Your task to perform on an android device: View the shopping cart on costco.com. Add "bose soundlink mini" to the cart on costco.com, then select checkout. Image 0: 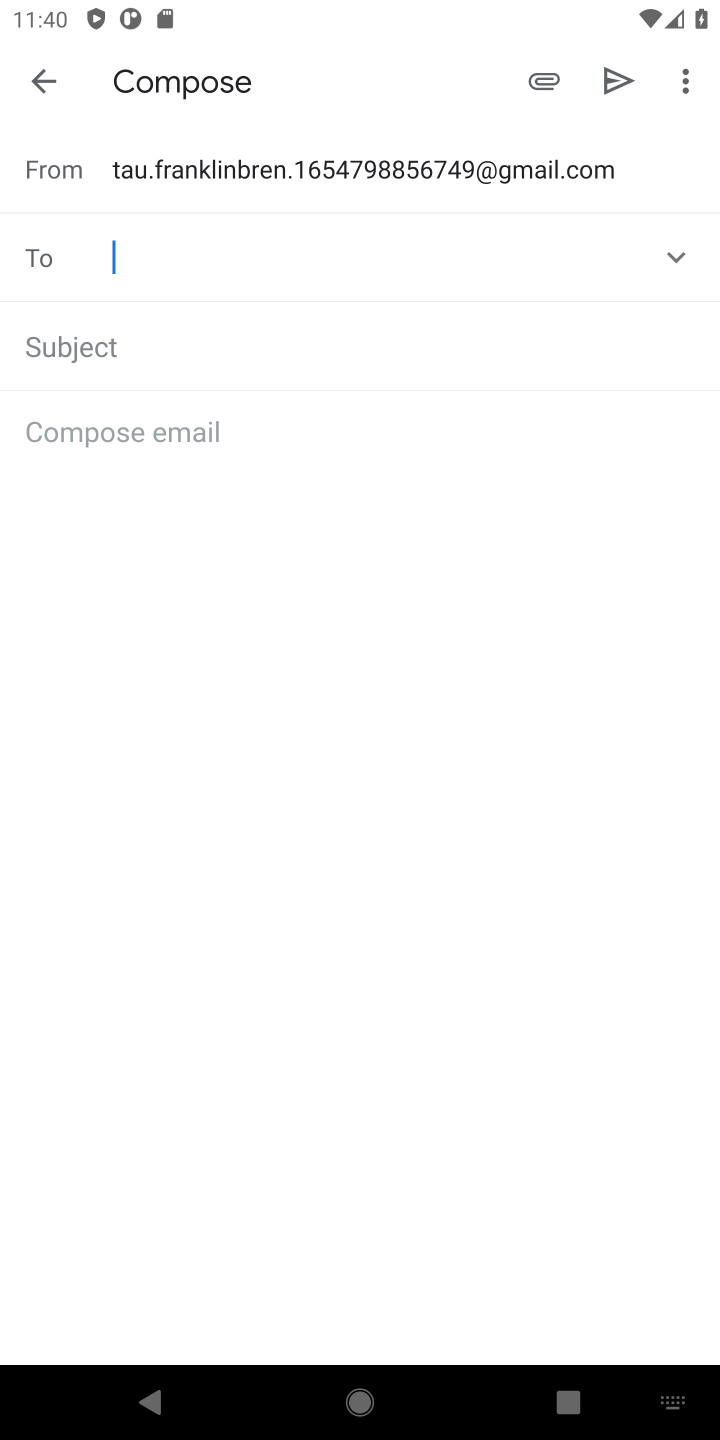
Step 0: press home button
Your task to perform on an android device: View the shopping cart on costco.com. Add "bose soundlink mini" to the cart on costco.com, then select checkout. Image 1: 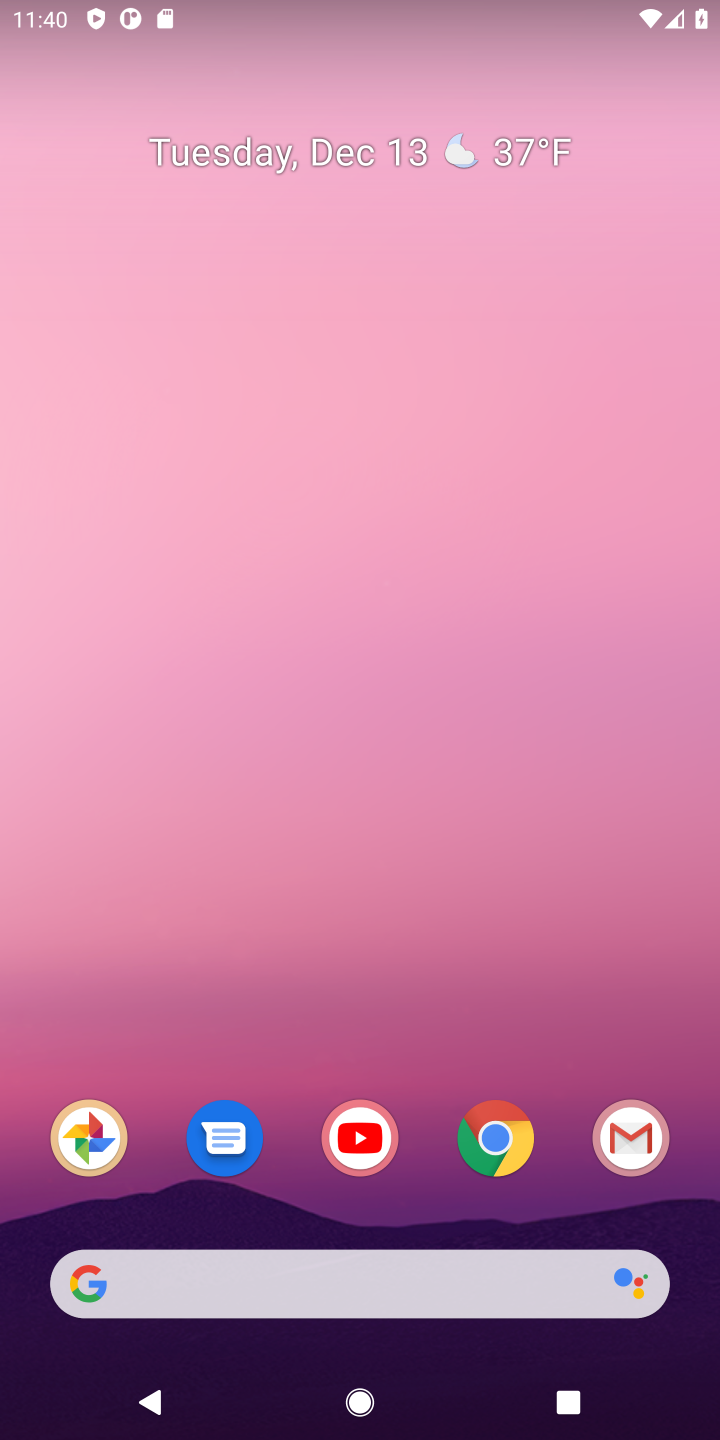
Step 1: click (509, 1152)
Your task to perform on an android device: View the shopping cart on costco.com. Add "bose soundlink mini" to the cart on costco.com, then select checkout. Image 2: 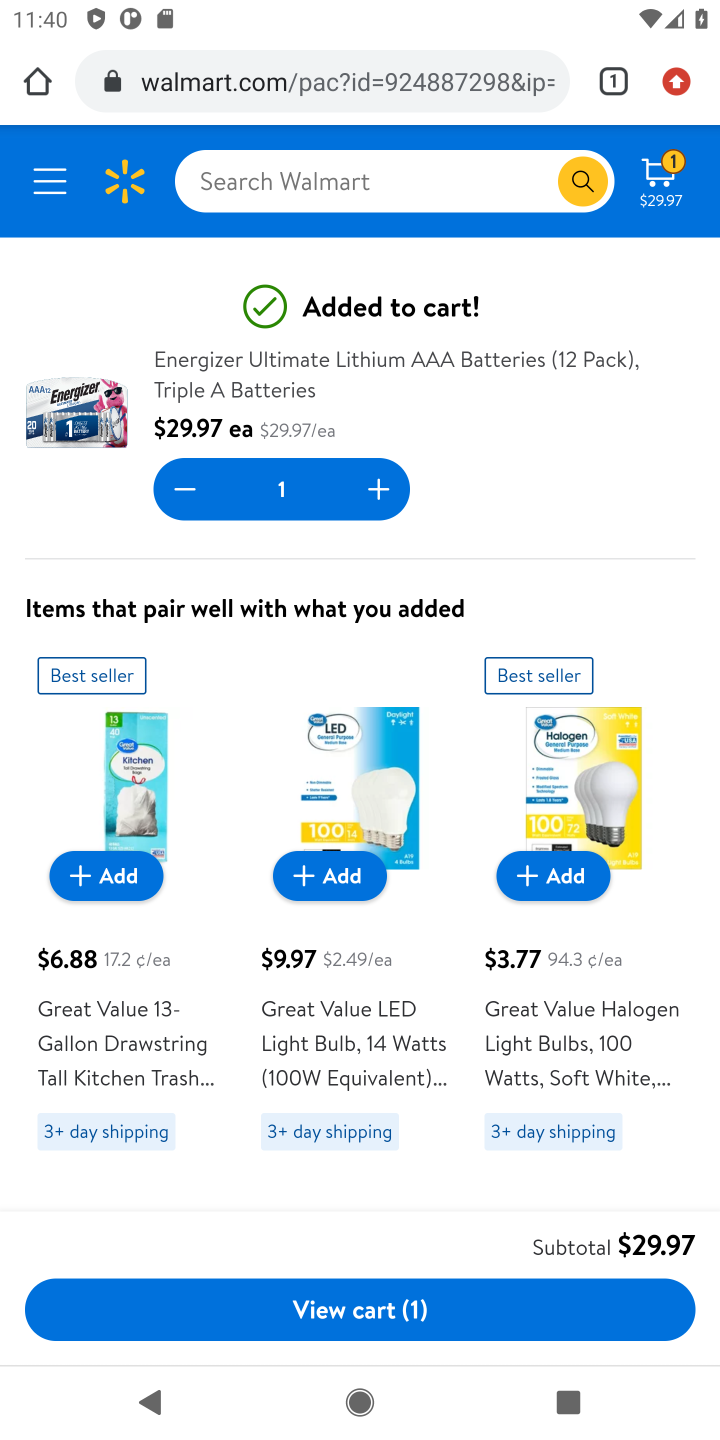
Step 2: click (612, 87)
Your task to perform on an android device: View the shopping cart on costco.com. Add "bose soundlink mini" to the cart on costco.com, then select checkout. Image 3: 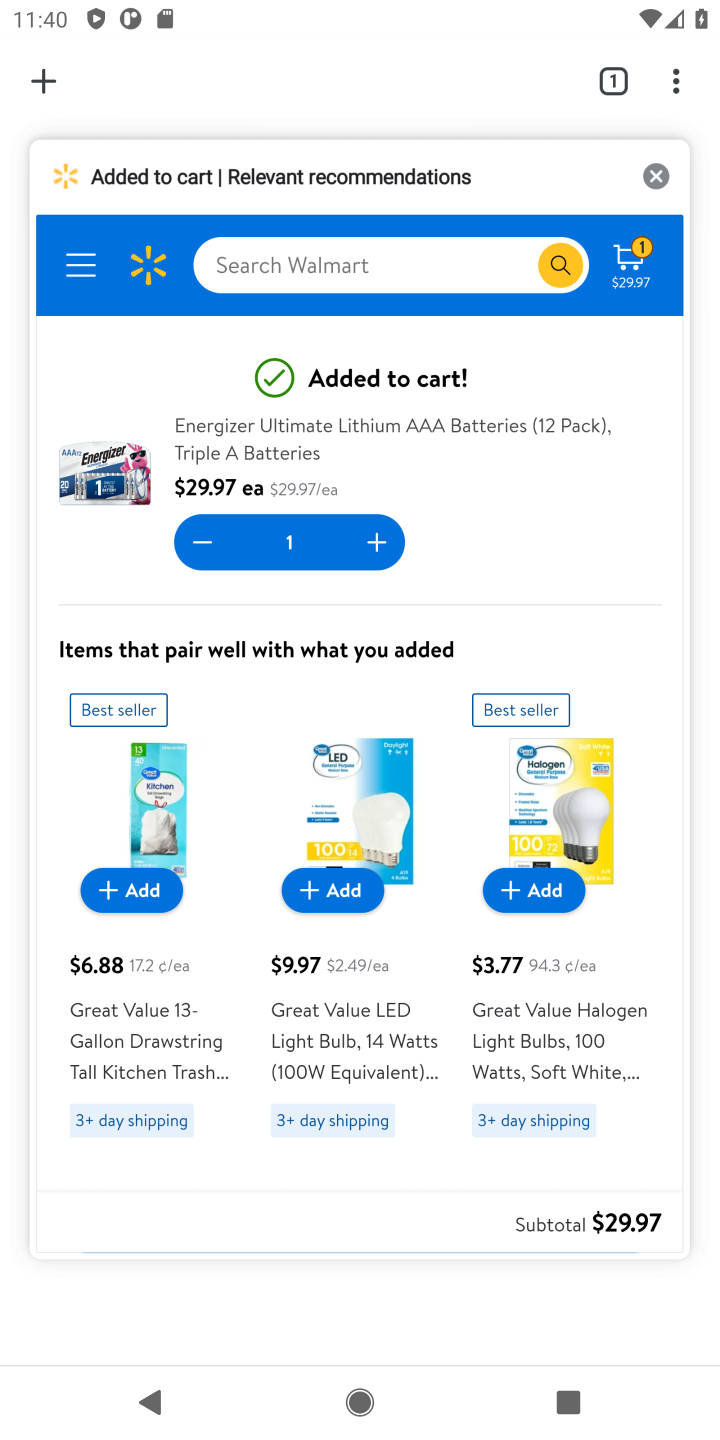
Step 3: click (47, 91)
Your task to perform on an android device: View the shopping cart on costco.com. Add "bose soundlink mini" to the cart on costco.com, then select checkout. Image 4: 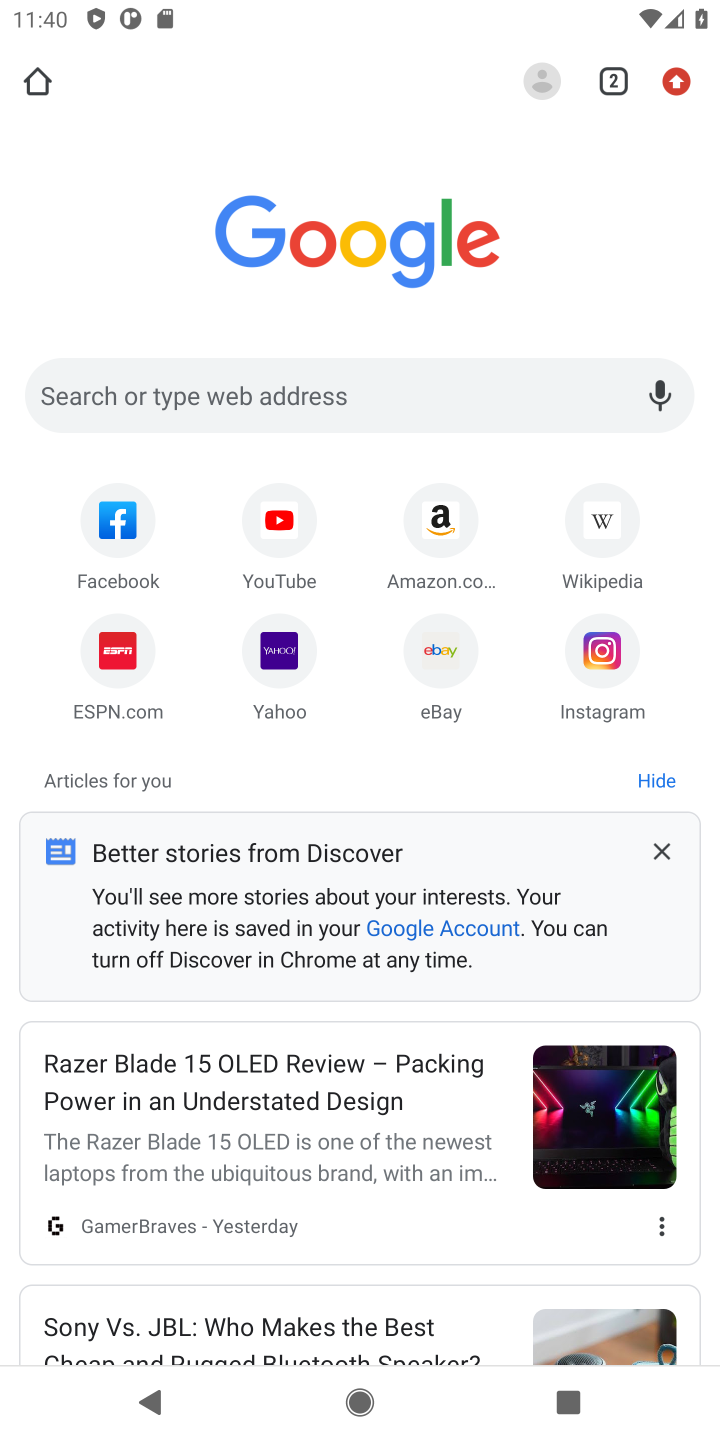
Step 4: click (307, 390)
Your task to perform on an android device: View the shopping cart on costco.com. Add "bose soundlink mini" to the cart on costco.com, then select checkout. Image 5: 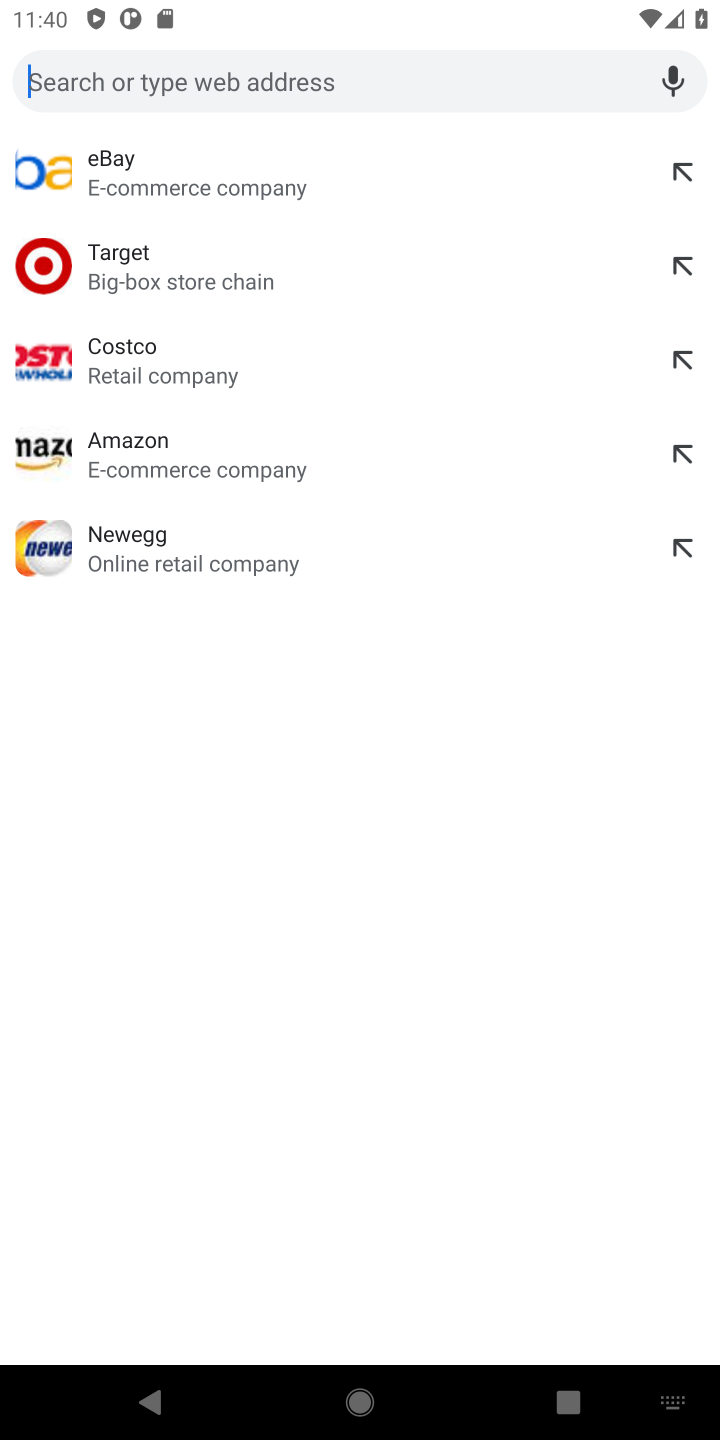
Step 5: type "costco"
Your task to perform on an android device: View the shopping cart on costco.com. Add "bose soundlink mini" to the cart on costco.com, then select checkout. Image 6: 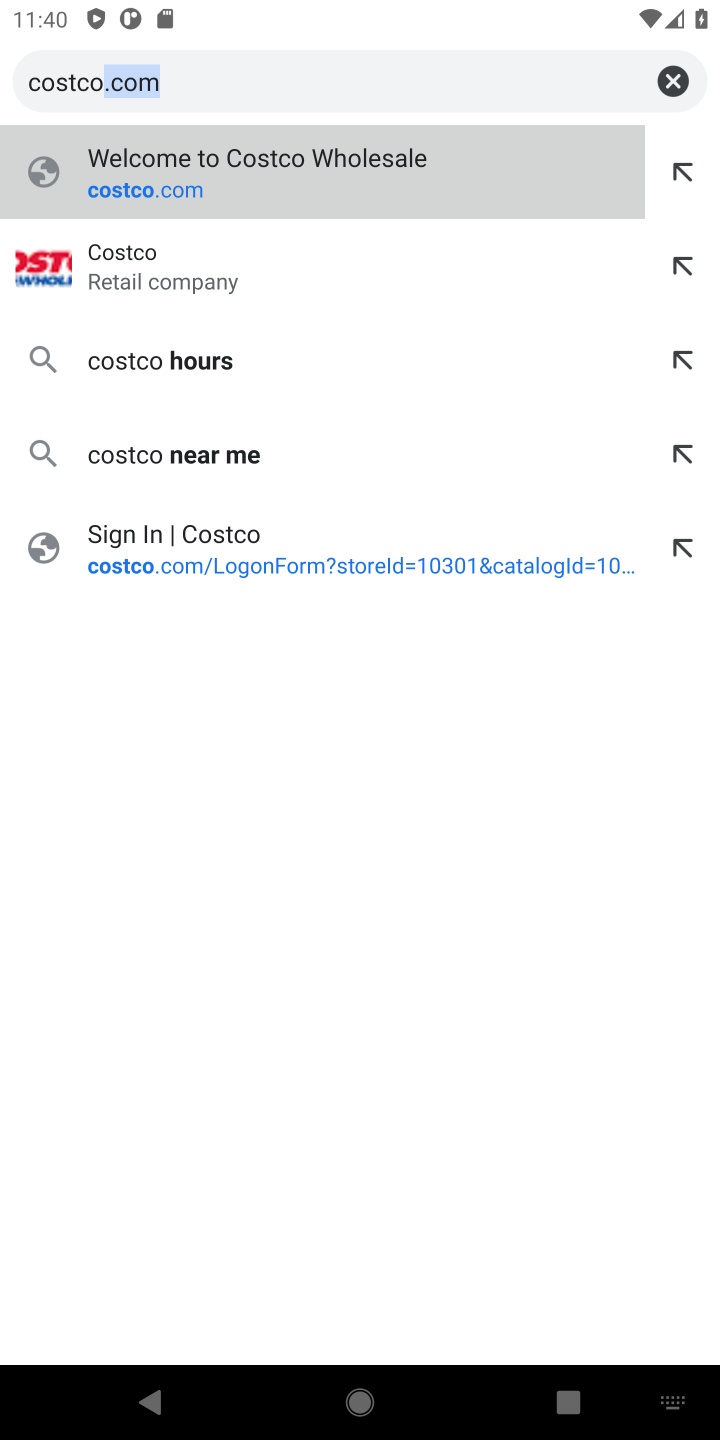
Step 6: click (291, 176)
Your task to perform on an android device: View the shopping cart on costco.com. Add "bose soundlink mini" to the cart on costco.com, then select checkout. Image 7: 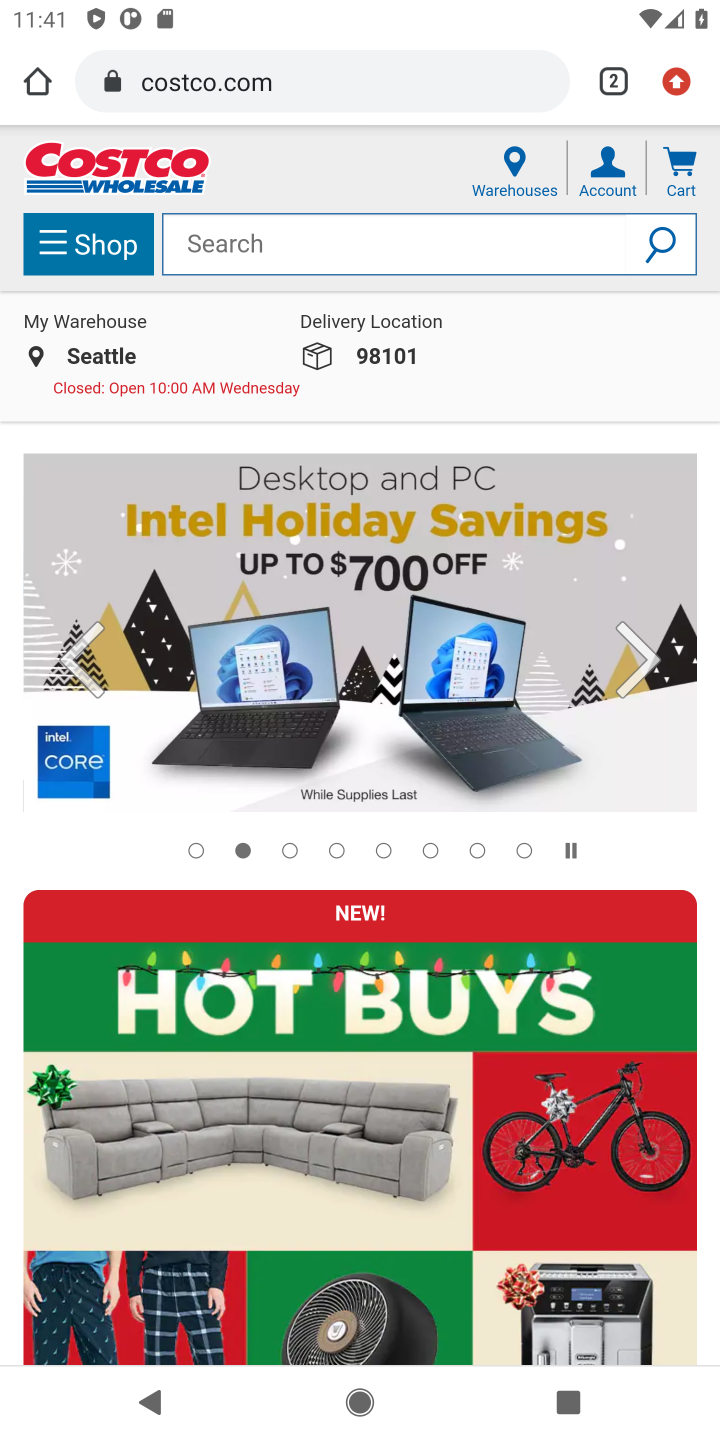
Step 7: click (213, 247)
Your task to perform on an android device: View the shopping cart on costco.com. Add "bose soundlink mini" to the cart on costco.com, then select checkout. Image 8: 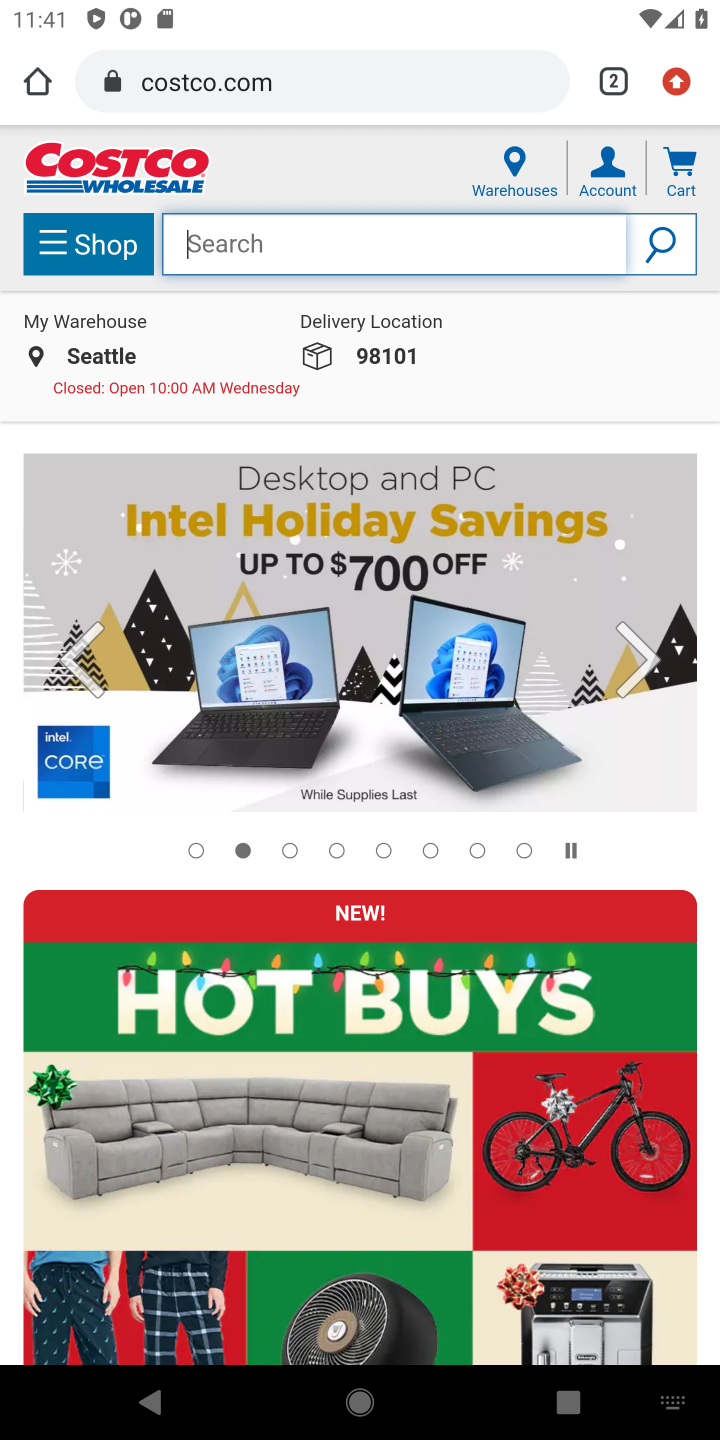
Step 8: type "bose soundlink mini"
Your task to perform on an android device: View the shopping cart on costco.com. Add "bose soundlink mini" to the cart on costco.com, then select checkout. Image 9: 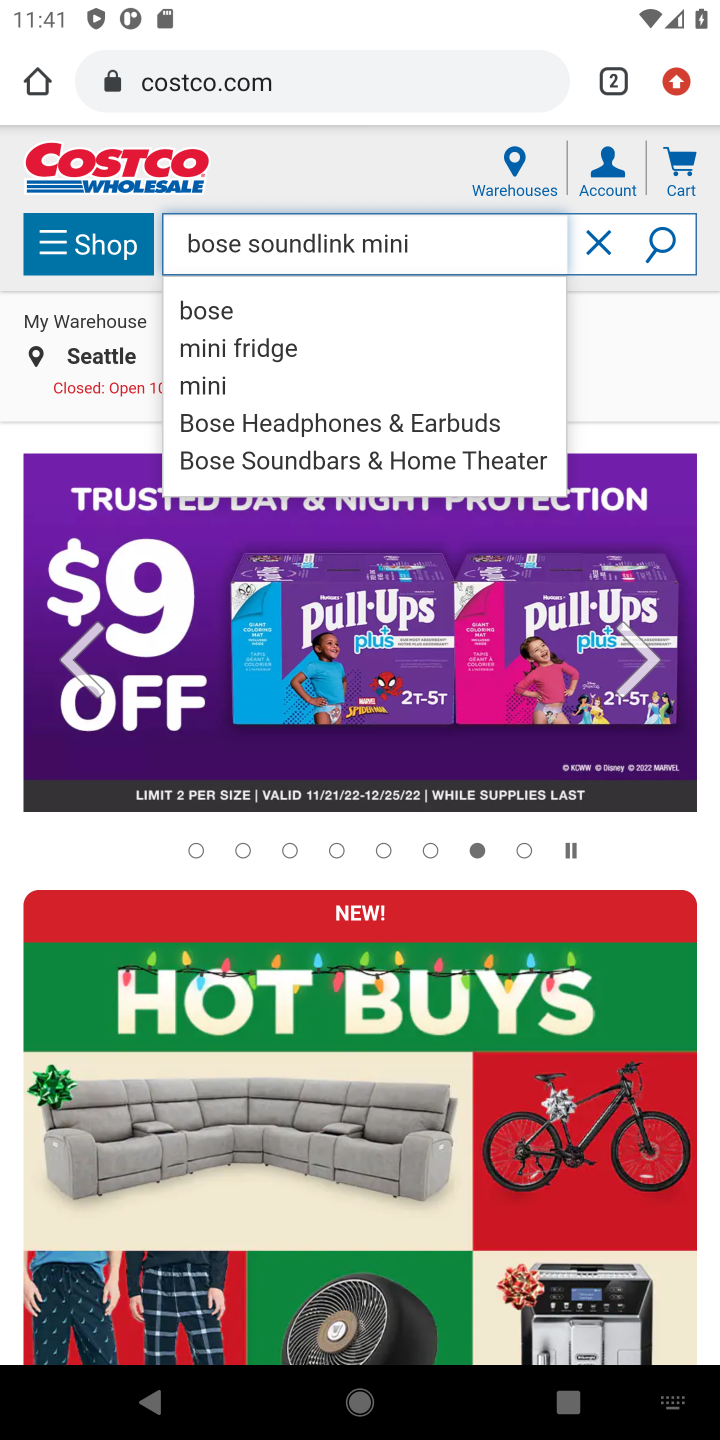
Step 9: click (658, 241)
Your task to perform on an android device: View the shopping cart on costco.com. Add "bose soundlink mini" to the cart on costco.com, then select checkout. Image 10: 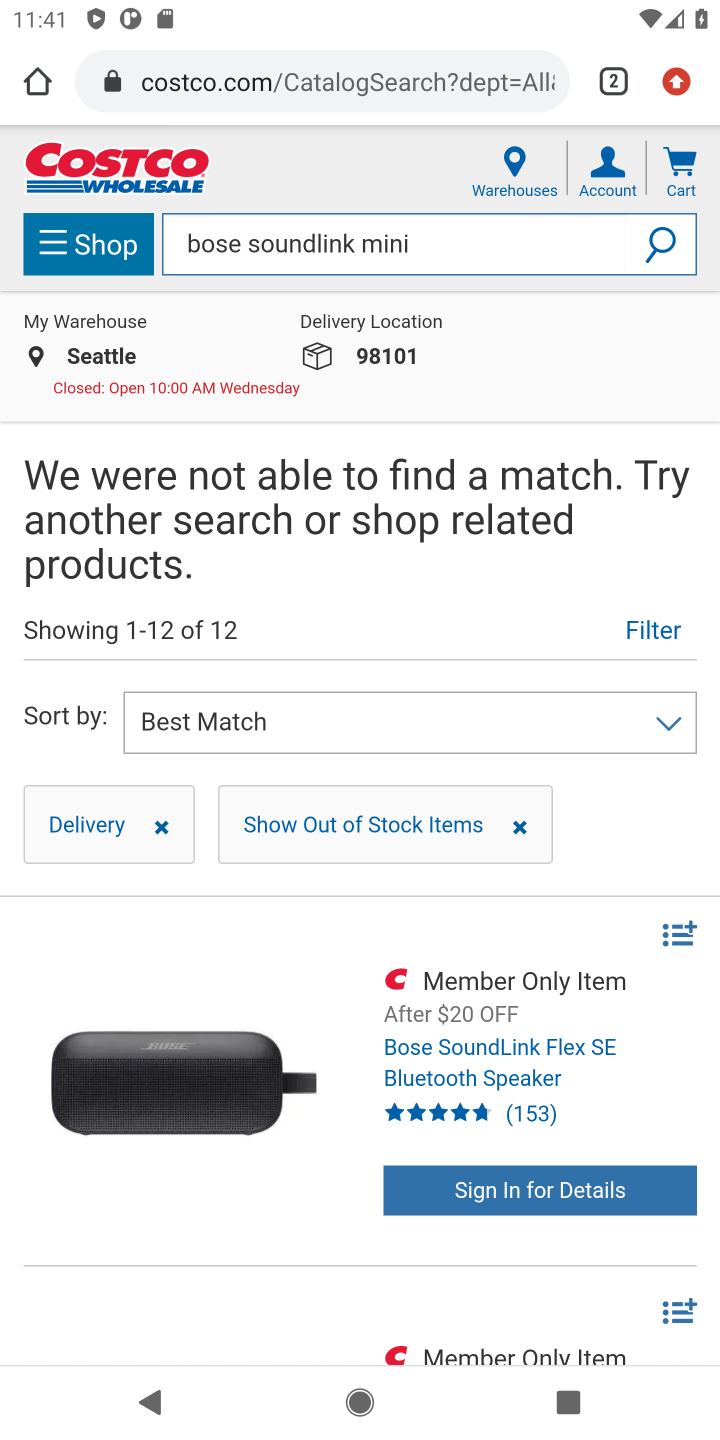
Step 10: task complete